Your task to perform on an android device: turn off picture-in-picture Image 0: 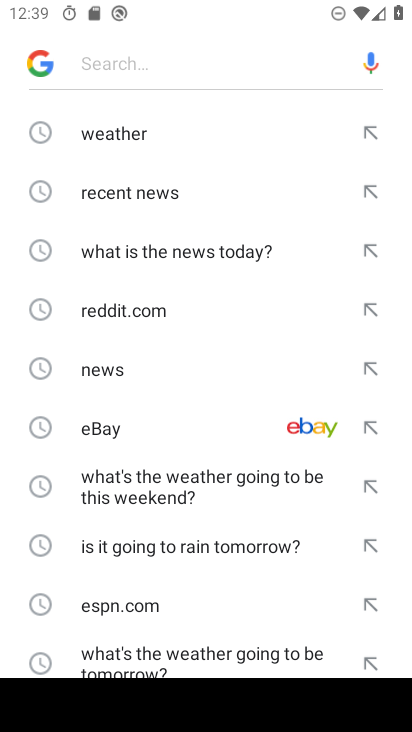
Step 0: press home button
Your task to perform on an android device: turn off picture-in-picture Image 1: 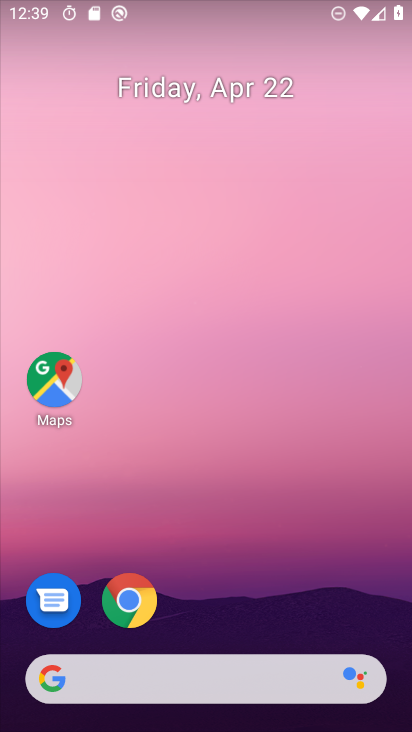
Step 1: click (132, 598)
Your task to perform on an android device: turn off picture-in-picture Image 2: 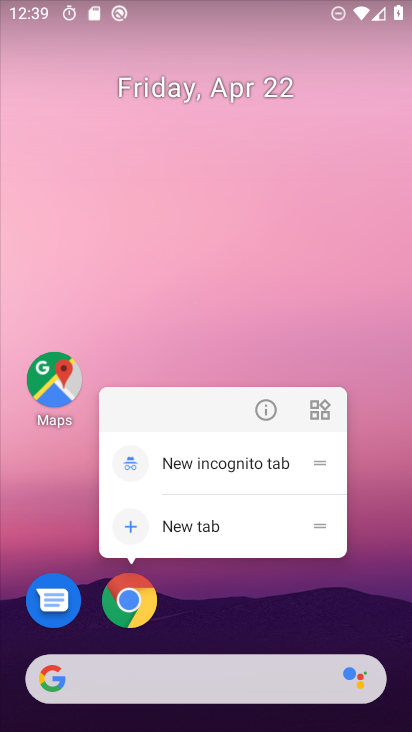
Step 2: click (267, 407)
Your task to perform on an android device: turn off picture-in-picture Image 3: 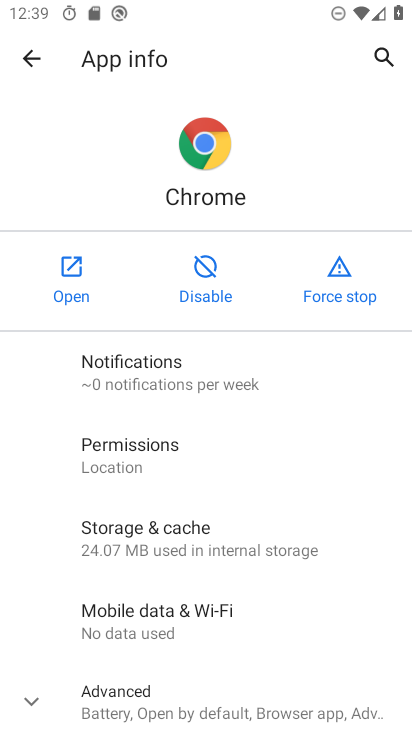
Step 3: drag from (225, 442) to (250, 231)
Your task to perform on an android device: turn off picture-in-picture Image 4: 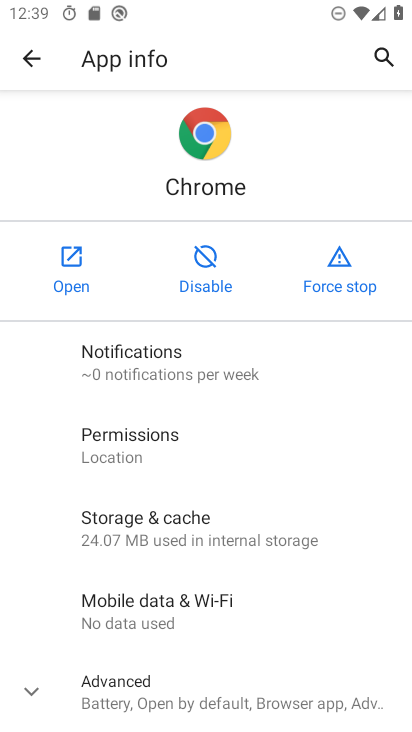
Step 4: drag from (231, 472) to (275, 358)
Your task to perform on an android device: turn off picture-in-picture Image 5: 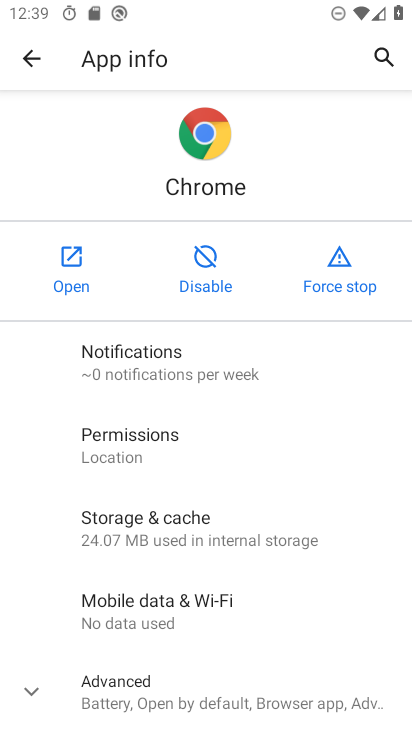
Step 5: click (253, 699)
Your task to perform on an android device: turn off picture-in-picture Image 6: 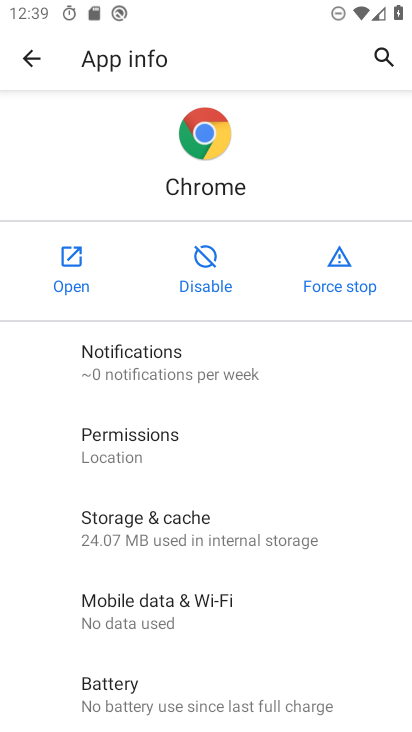
Step 6: drag from (253, 608) to (298, 419)
Your task to perform on an android device: turn off picture-in-picture Image 7: 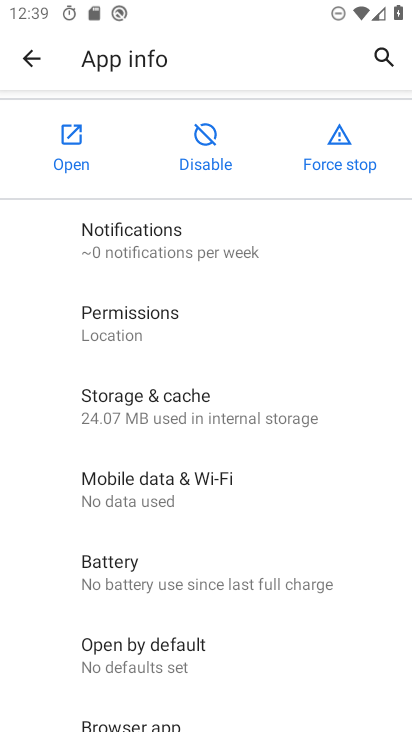
Step 7: drag from (245, 530) to (310, 380)
Your task to perform on an android device: turn off picture-in-picture Image 8: 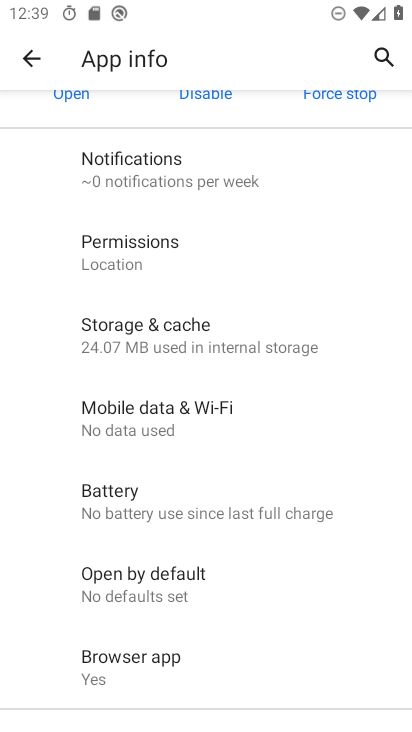
Step 8: drag from (238, 590) to (283, 413)
Your task to perform on an android device: turn off picture-in-picture Image 9: 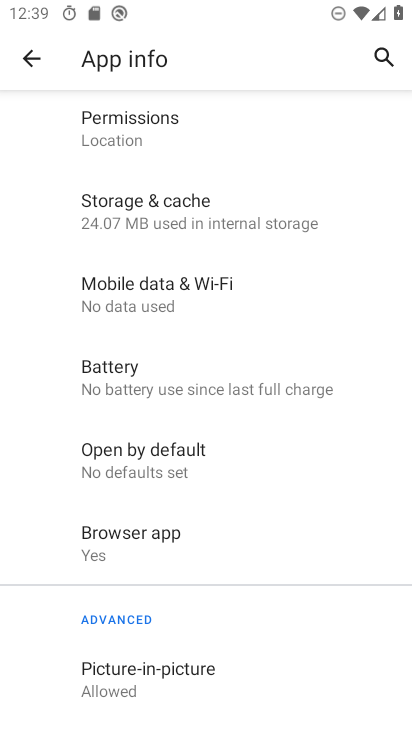
Step 9: drag from (244, 545) to (321, 415)
Your task to perform on an android device: turn off picture-in-picture Image 10: 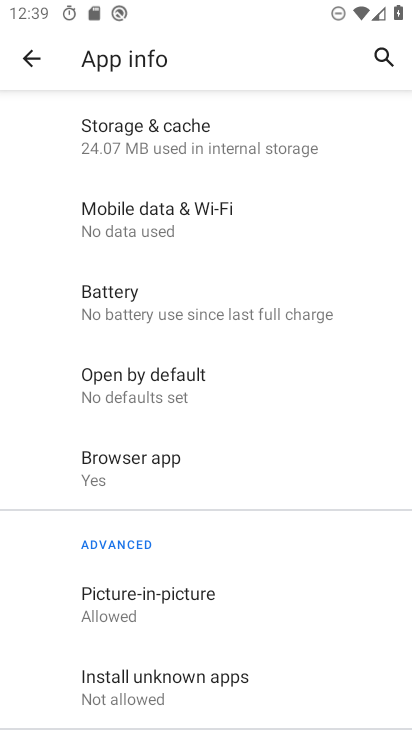
Step 10: click (188, 592)
Your task to perform on an android device: turn off picture-in-picture Image 11: 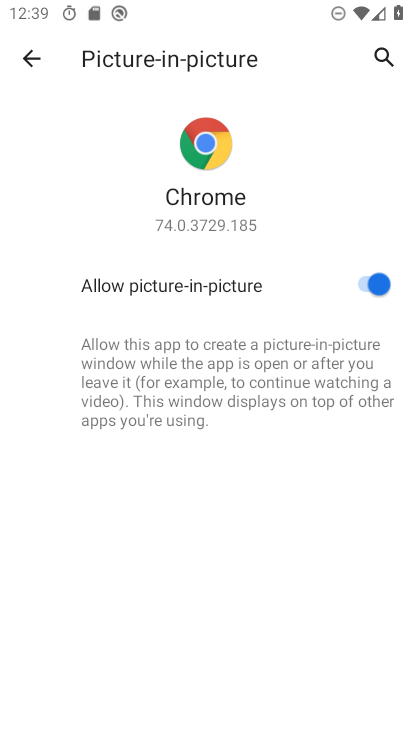
Step 11: click (381, 288)
Your task to perform on an android device: turn off picture-in-picture Image 12: 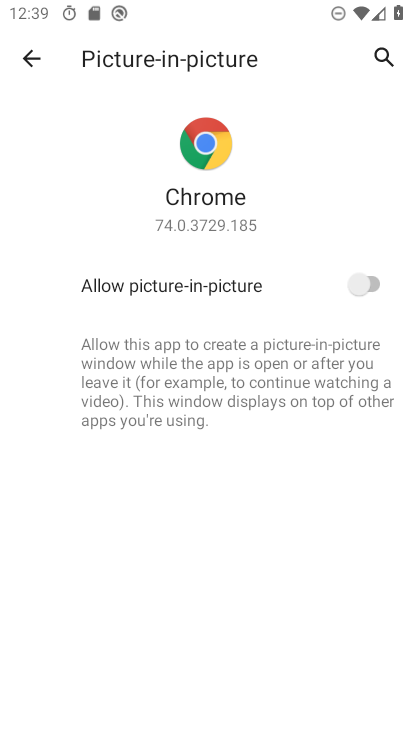
Step 12: task complete